Your task to perform on an android device: Is it going to rain today? Image 0: 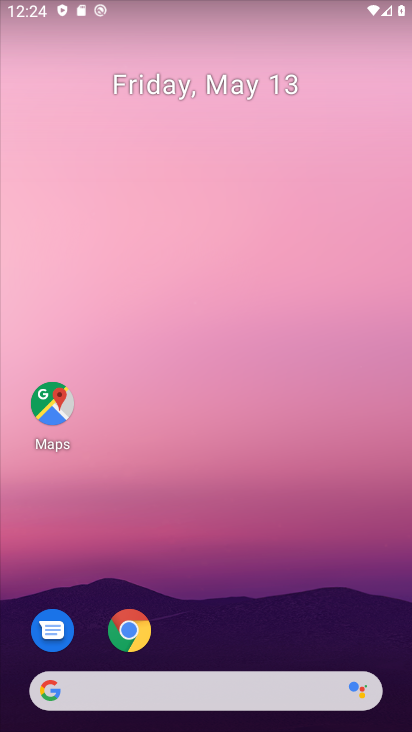
Step 0: drag from (257, 689) to (270, 202)
Your task to perform on an android device: Is it going to rain today? Image 1: 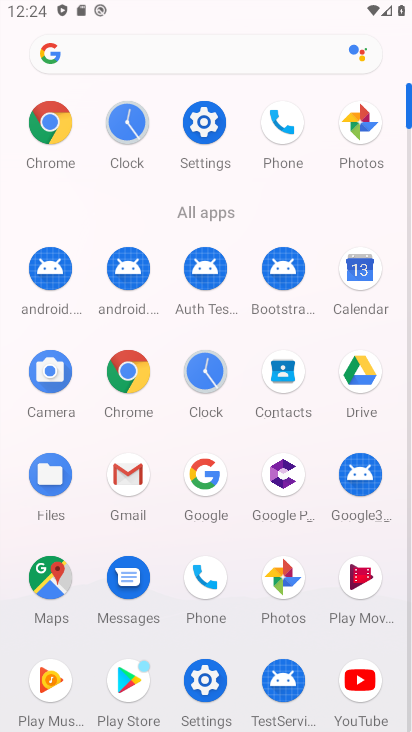
Step 1: click (118, 53)
Your task to perform on an android device: Is it going to rain today? Image 2: 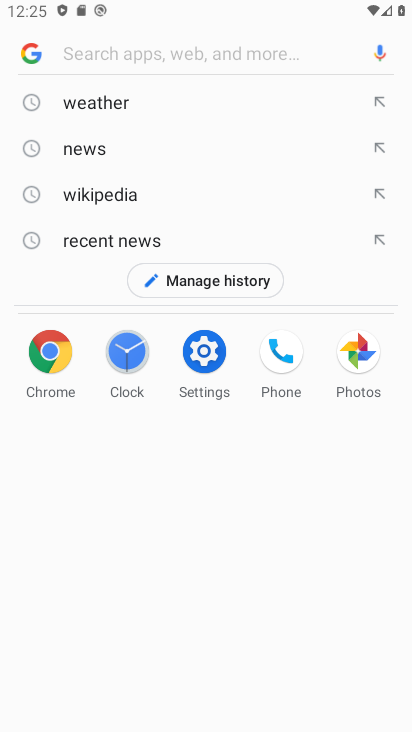
Step 2: click (129, 100)
Your task to perform on an android device: Is it going to rain today? Image 3: 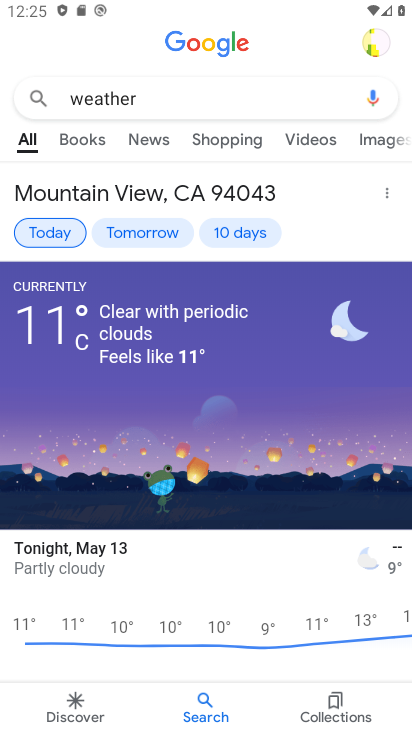
Step 3: task complete